Your task to perform on an android device: toggle location history Image 0: 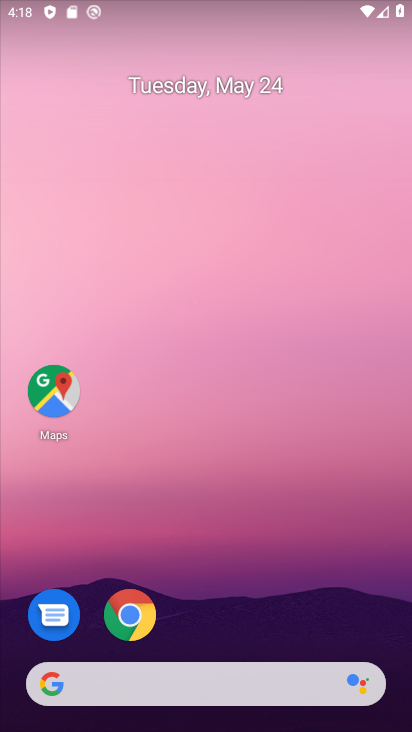
Step 0: click (56, 395)
Your task to perform on an android device: toggle location history Image 1: 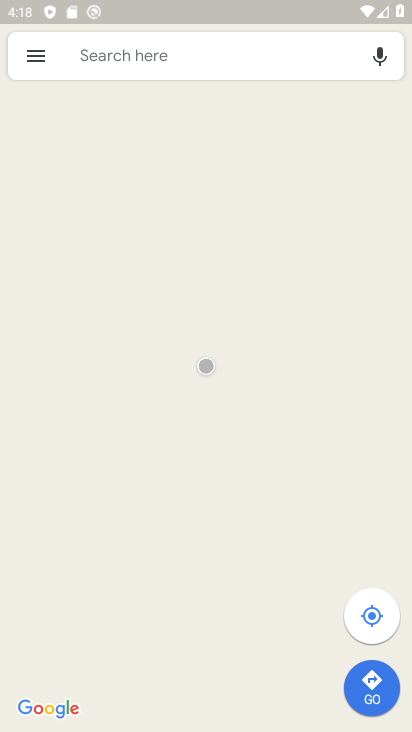
Step 1: click (29, 59)
Your task to perform on an android device: toggle location history Image 2: 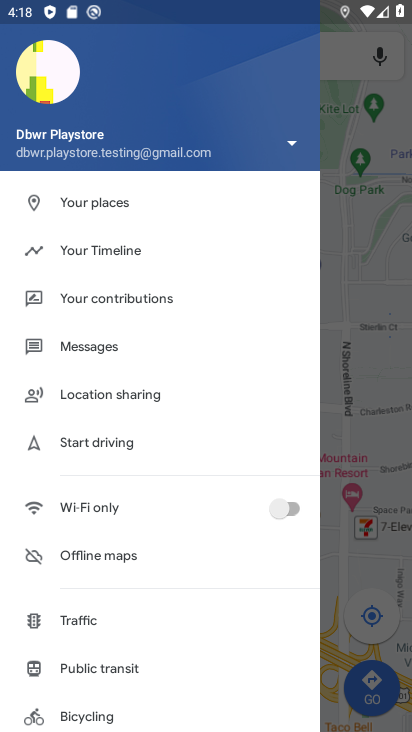
Step 2: click (113, 245)
Your task to perform on an android device: toggle location history Image 3: 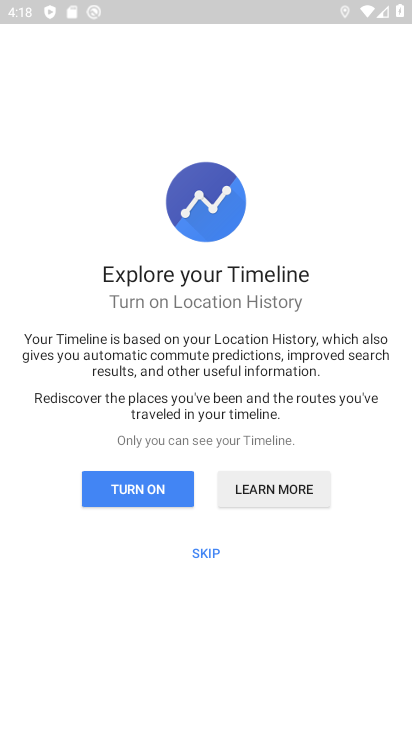
Step 3: click (198, 547)
Your task to perform on an android device: toggle location history Image 4: 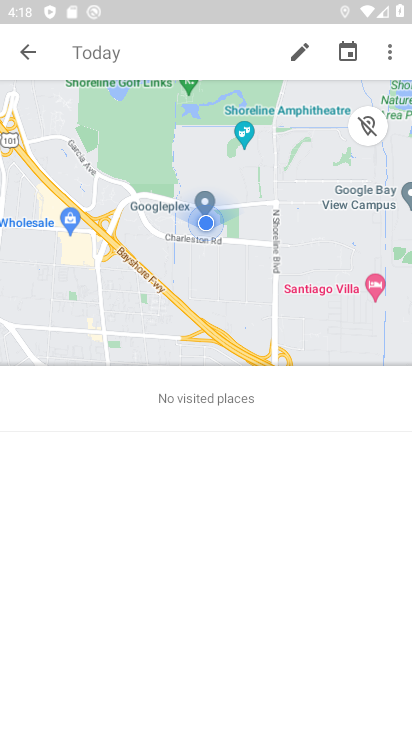
Step 4: click (381, 57)
Your task to perform on an android device: toggle location history Image 5: 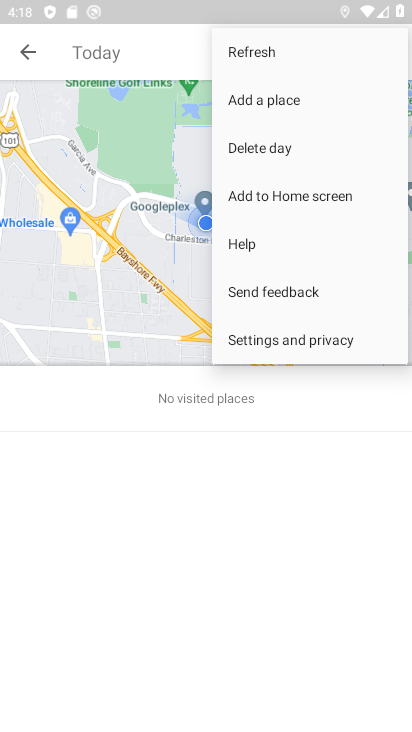
Step 5: click (321, 344)
Your task to perform on an android device: toggle location history Image 6: 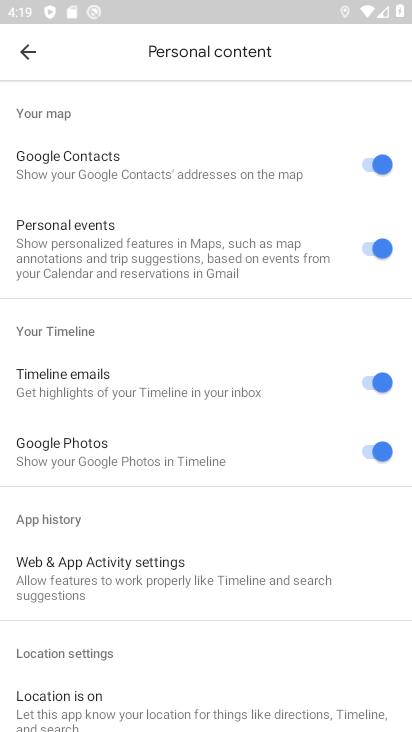
Step 6: drag from (218, 674) to (156, 222)
Your task to perform on an android device: toggle location history Image 7: 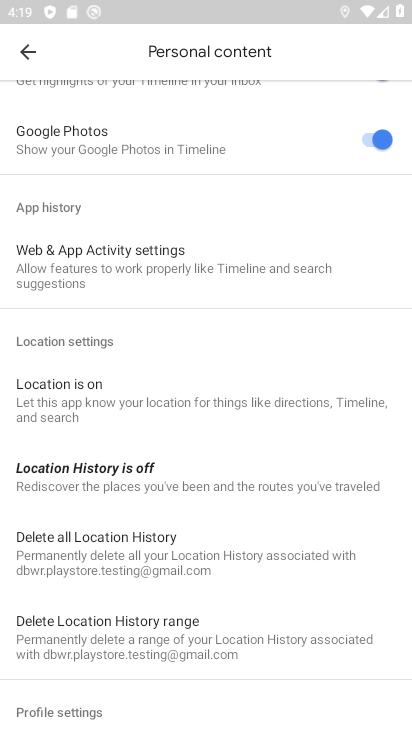
Step 7: click (127, 481)
Your task to perform on an android device: toggle location history Image 8: 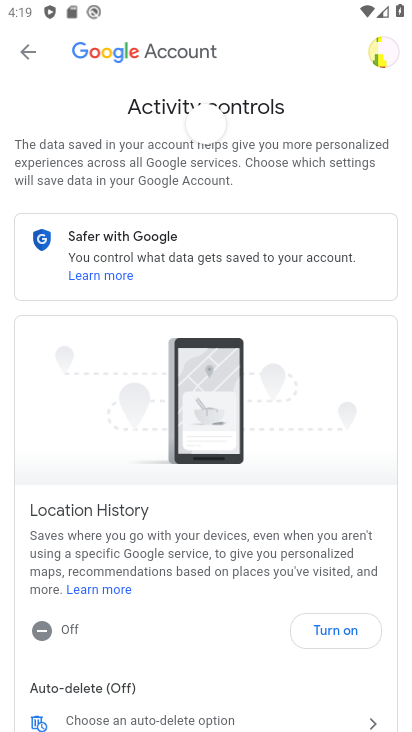
Step 8: click (321, 628)
Your task to perform on an android device: toggle location history Image 9: 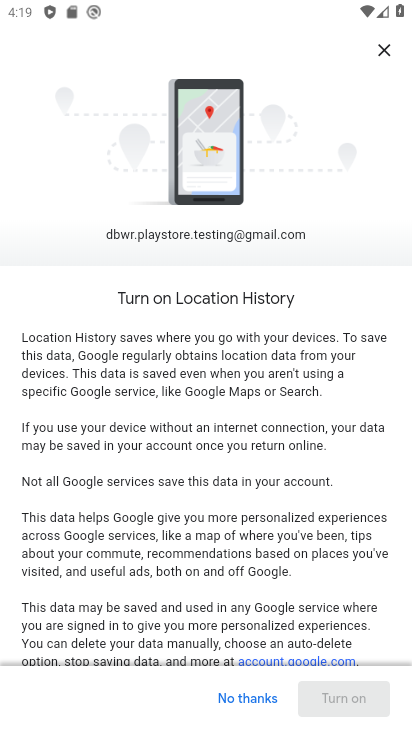
Step 9: drag from (195, 602) to (185, 157)
Your task to perform on an android device: toggle location history Image 10: 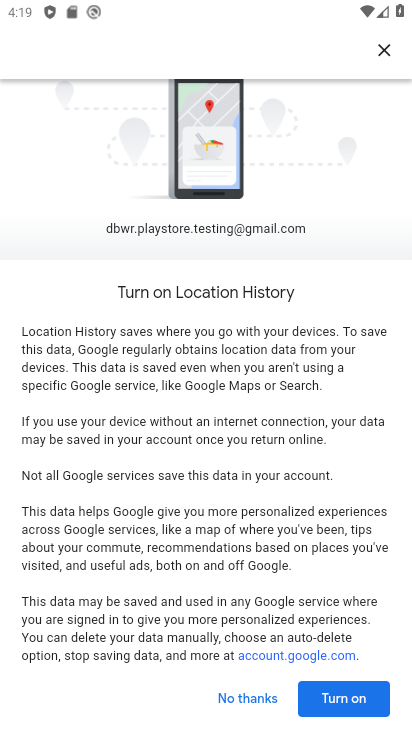
Step 10: click (344, 687)
Your task to perform on an android device: toggle location history Image 11: 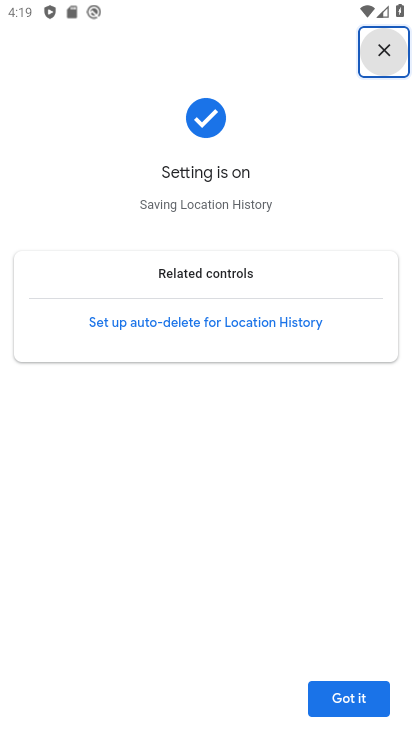
Step 11: click (352, 698)
Your task to perform on an android device: toggle location history Image 12: 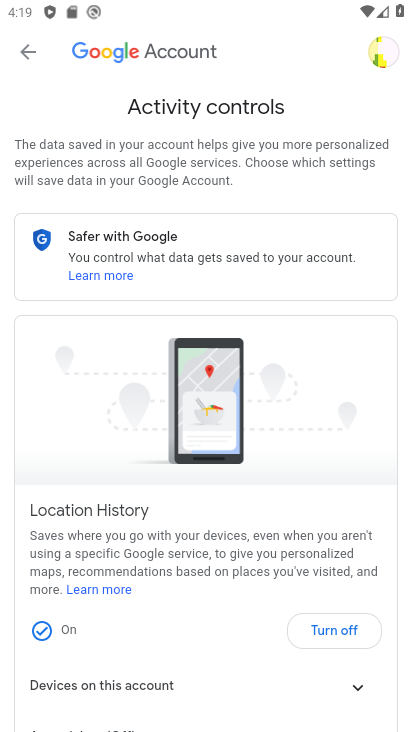
Step 12: task complete